Your task to perform on an android device: set the timer Image 0: 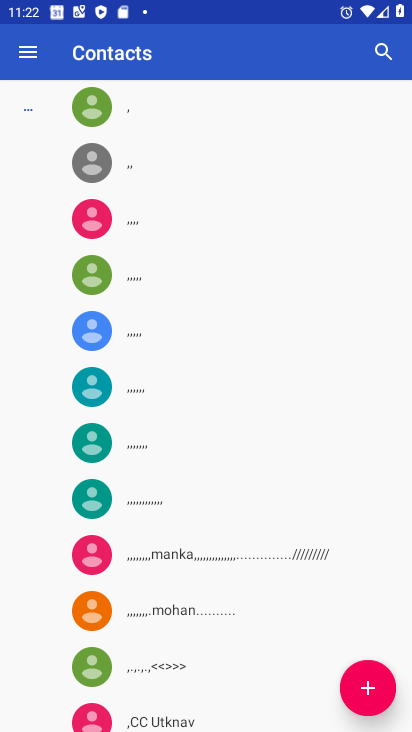
Step 0: press home button
Your task to perform on an android device: set the timer Image 1: 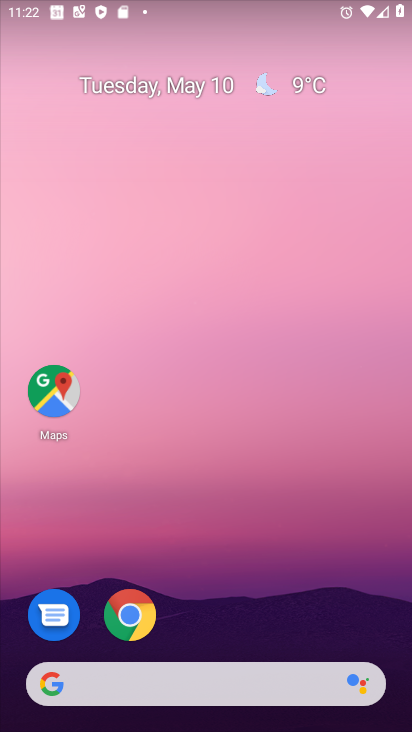
Step 1: drag from (197, 640) to (232, 143)
Your task to perform on an android device: set the timer Image 2: 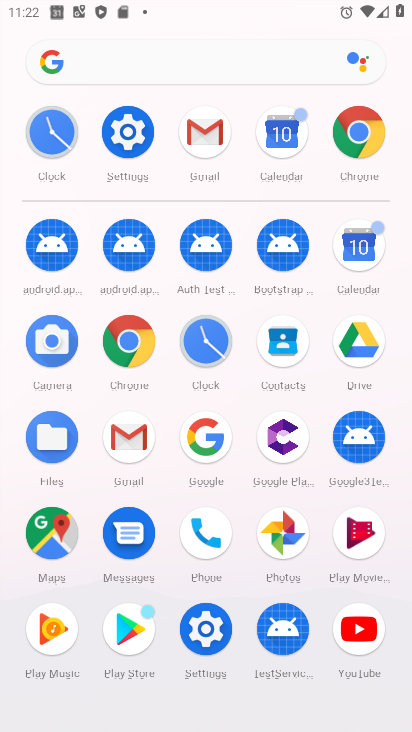
Step 2: click (208, 335)
Your task to perform on an android device: set the timer Image 3: 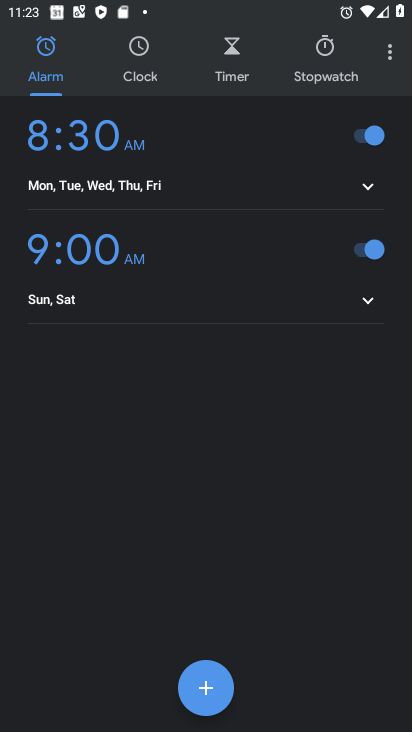
Step 3: click (226, 52)
Your task to perform on an android device: set the timer Image 4: 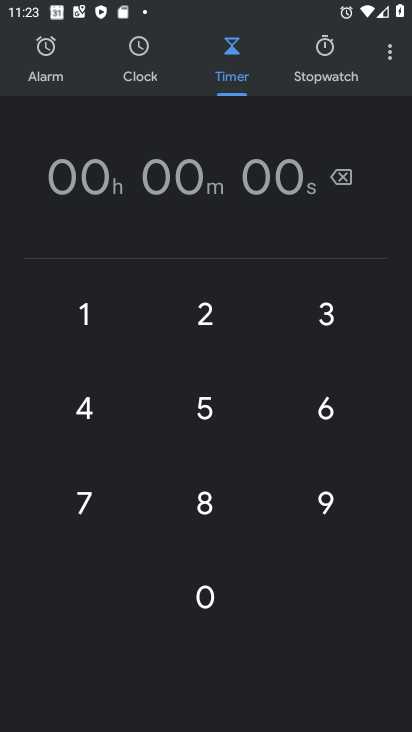
Step 4: click (94, 311)
Your task to perform on an android device: set the timer Image 5: 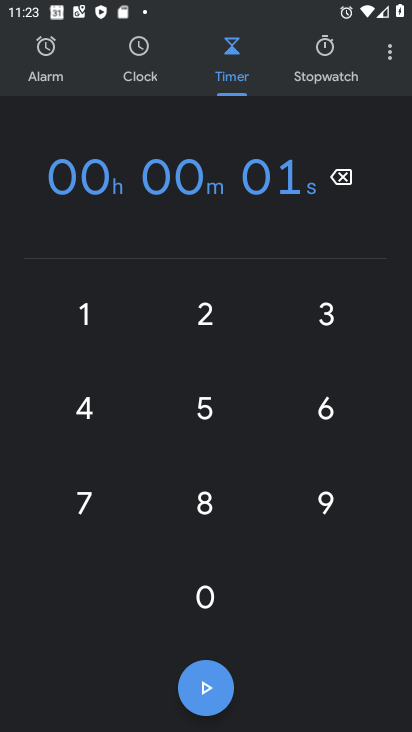
Step 5: click (212, 593)
Your task to perform on an android device: set the timer Image 6: 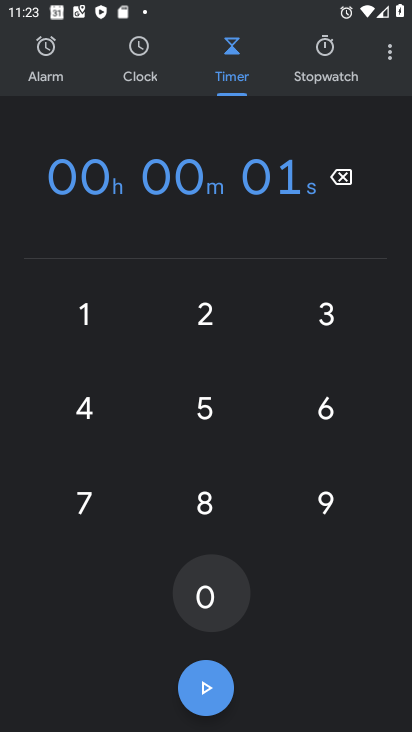
Step 6: click (212, 593)
Your task to perform on an android device: set the timer Image 7: 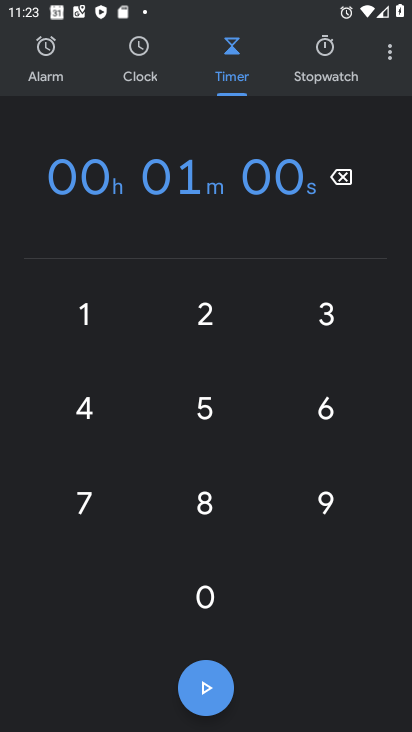
Step 7: click (212, 594)
Your task to perform on an android device: set the timer Image 8: 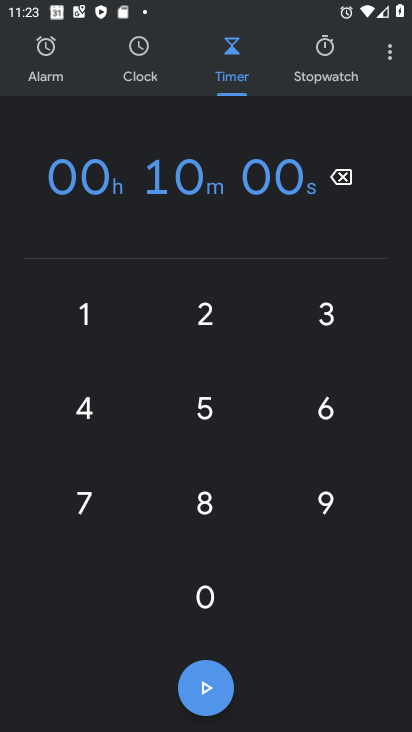
Step 8: click (201, 697)
Your task to perform on an android device: set the timer Image 9: 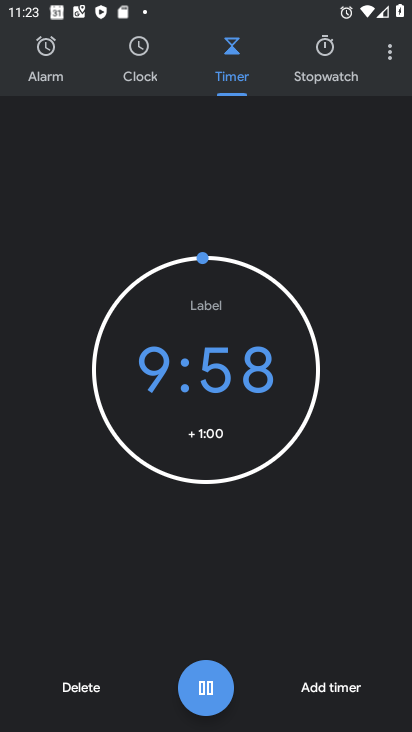
Step 9: task complete